Your task to perform on an android device: turn off data saver in the chrome app Image 0: 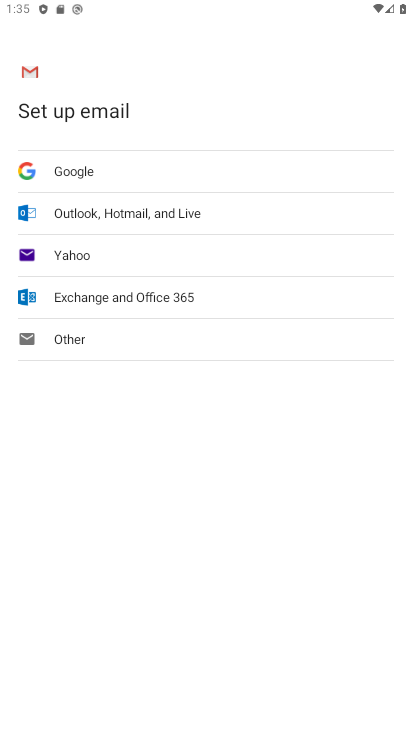
Step 0: press home button
Your task to perform on an android device: turn off data saver in the chrome app Image 1: 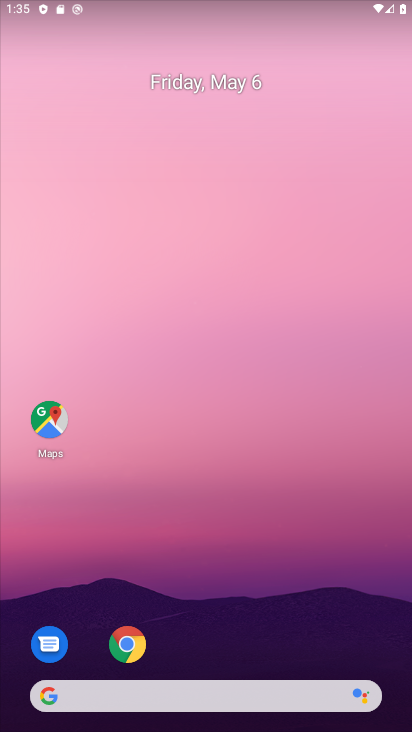
Step 1: click (124, 644)
Your task to perform on an android device: turn off data saver in the chrome app Image 2: 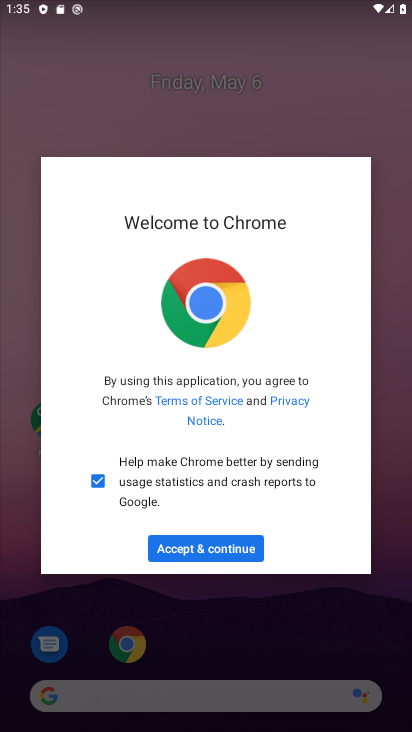
Step 2: click (189, 547)
Your task to perform on an android device: turn off data saver in the chrome app Image 3: 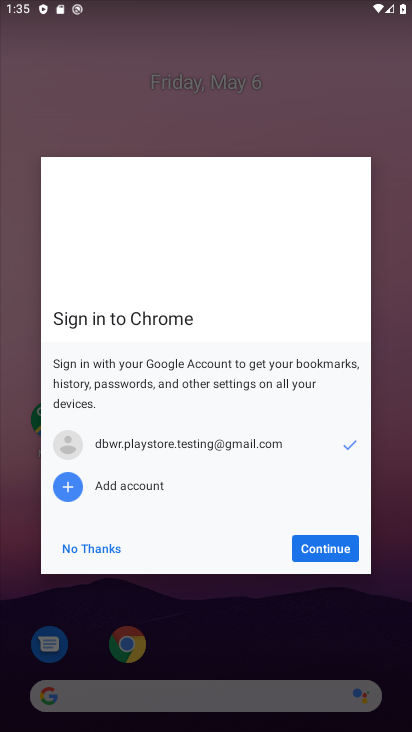
Step 3: click (334, 545)
Your task to perform on an android device: turn off data saver in the chrome app Image 4: 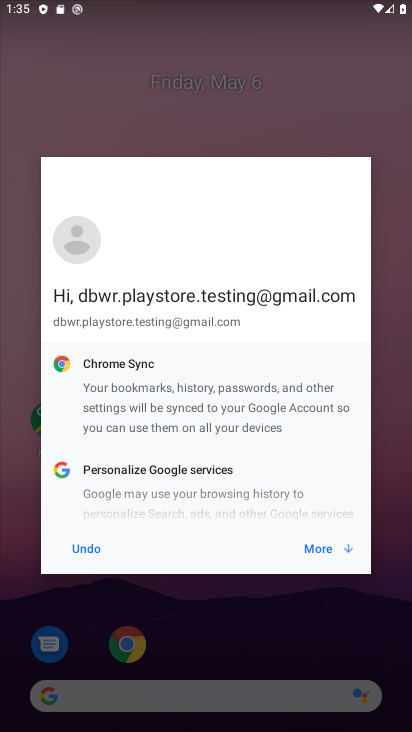
Step 4: click (321, 551)
Your task to perform on an android device: turn off data saver in the chrome app Image 5: 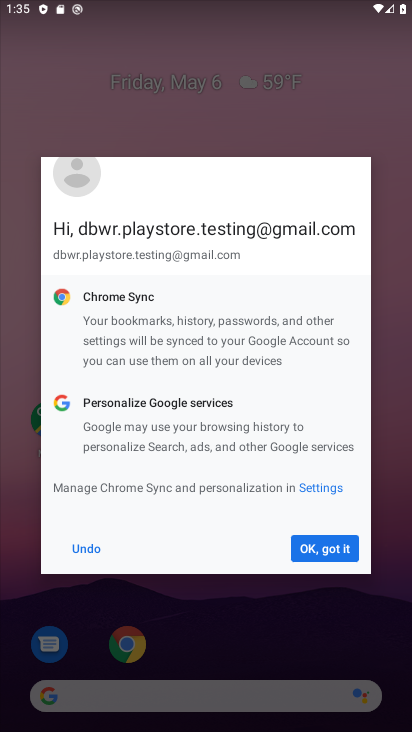
Step 5: click (321, 551)
Your task to perform on an android device: turn off data saver in the chrome app Image 6: 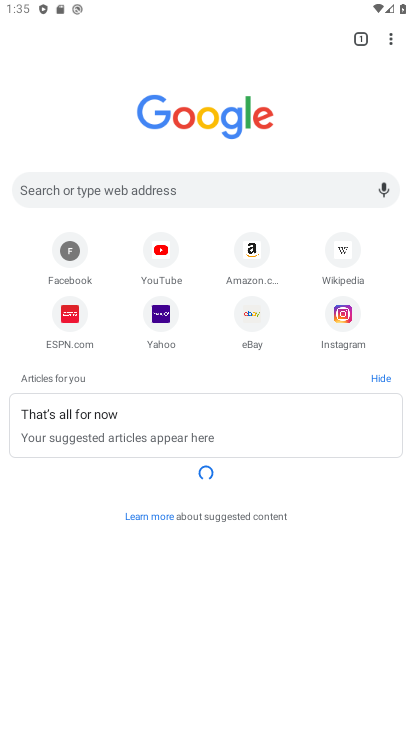
Step 6: click (388, 36)
Your task to perform on an android device: turn off data saver in the chrome app Image 7: 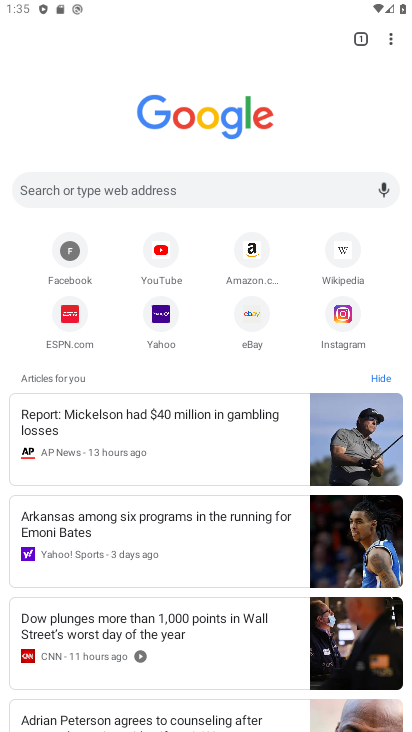
Step 7: click (388, 40)
Your task to perform on an android device: turn off data saver in the chrome app Image 8: 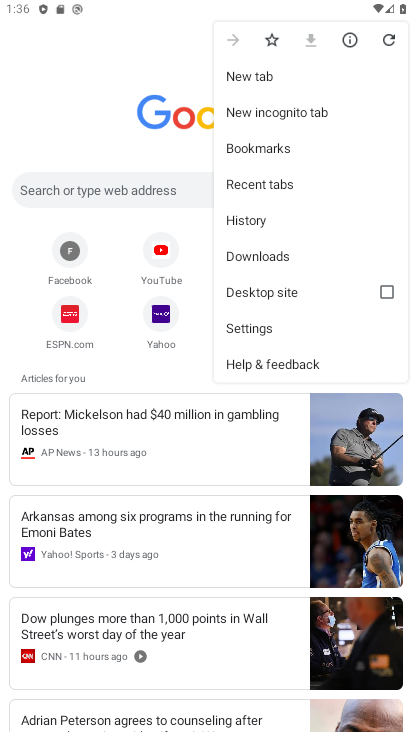
Step 8: click (251, 330)
Your task to perform on an android device: turn off data saver in the chrome app Image 9: 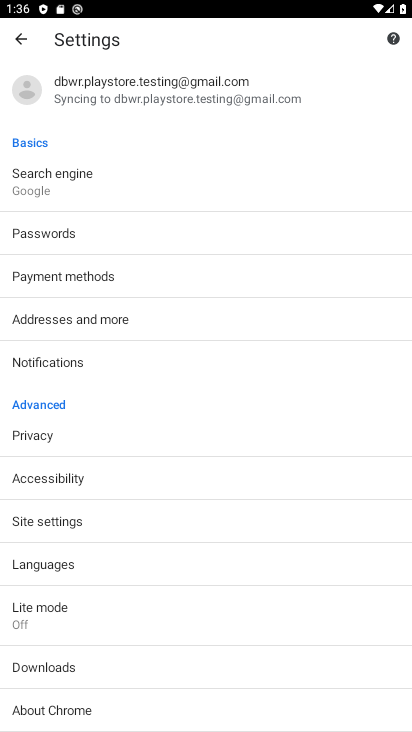
Step 9: click (50, 599)
Your task to perform on an android device: turn off data saver in the chrome app Image 10: 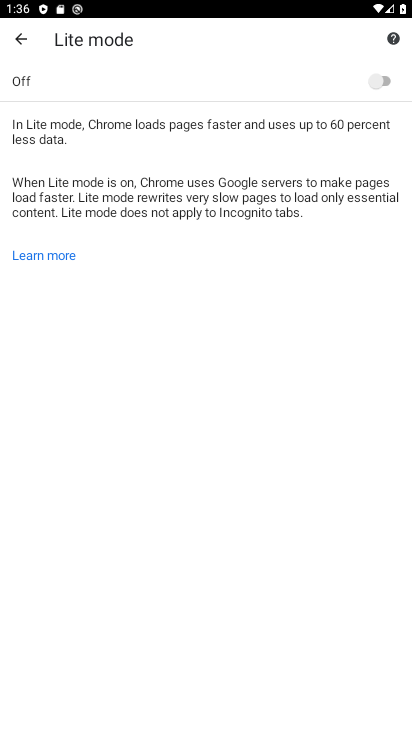
Step 10: task complete